Your task to perform on an android device: Search for the best rated kitchen reno kits on Lowes.com Image 0: 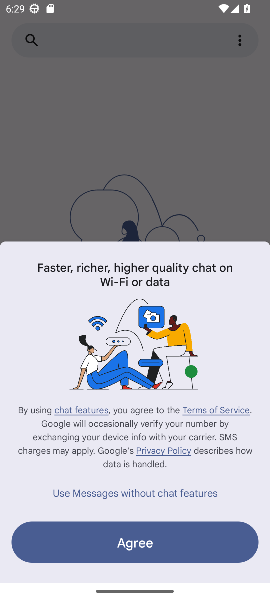
Step 0: press home button
Your task to perform on an android device: Search for the best rated kitchen reno kits on Lowes.com Image 1: 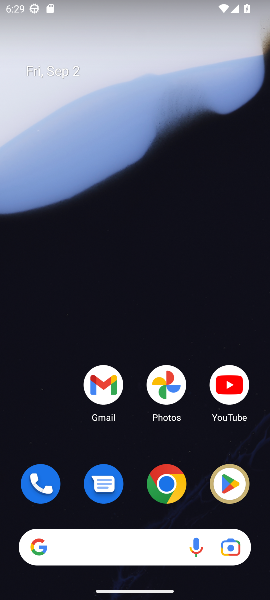
Step 1: click (162, 478)
Your task to perform on an android device: Search for the best rated kitchen reno kits on Lowes.com Image 2: 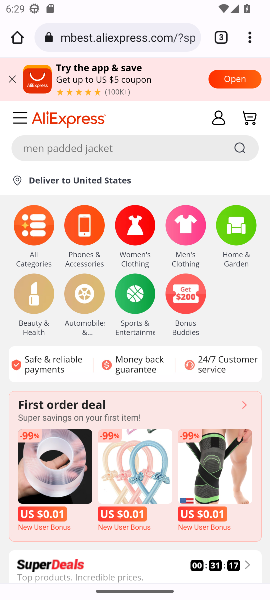
Step 2: click (151, 38)
Your task to perform on an android device: Search for the best rated kitchen reno kits on Lowes.com Image 3: 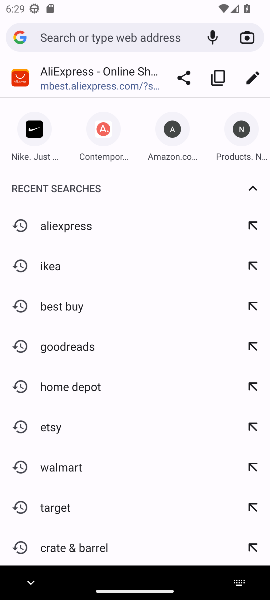
Step 3: type "Lowes.com"
Your task to perform on an android device: Search for the best rated kitchen reno kits on Lowes.com Image 4: 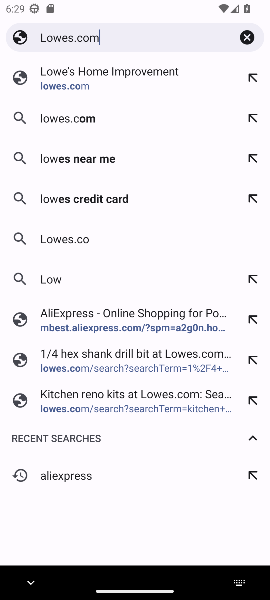
Step 4: press enter
Your task to perform on an android device: Search for the best rated kitchen reno kits on Lowes.com Image 5: 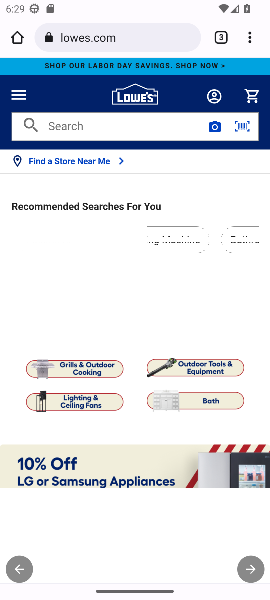
Step 5: click (149, 126)
Your task to perform on an android device: Search for the best rated kitchen reno kits on Lowes.com Image 6: 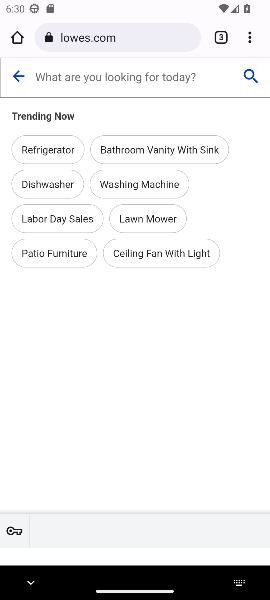
Step 6: press enter
Your task to perform on an android device: Search for the best rated kitchen reno kits on Lowes.com Image 7: 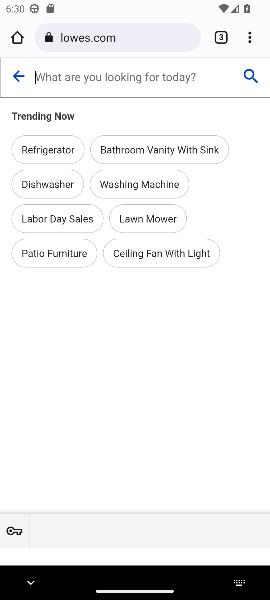
Step 7: type "kitchen reno kits"
Your task to perform on an android device: Search for the best rated kitchen reno kits on Lowes.com Image 8: 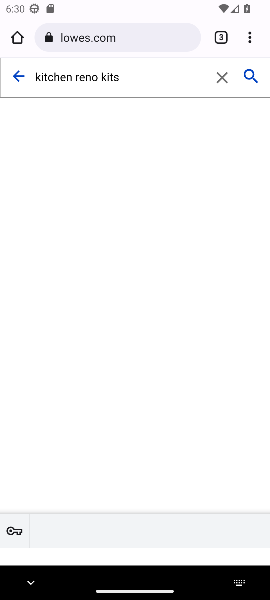
Step 8: click (248, 70)
Your task to perform on an android device: Search for the best rated kitchen reno kits on Lowes.com Image 9: 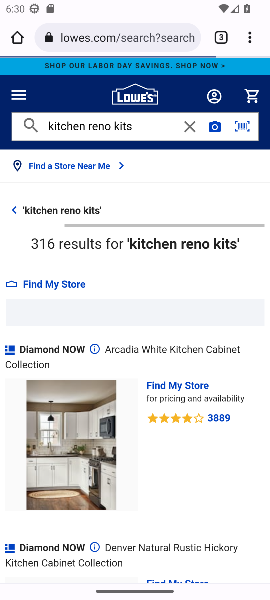
Step 9: task complete